Your task to perform on an android device: uninstall "Google Keep" Image 0: 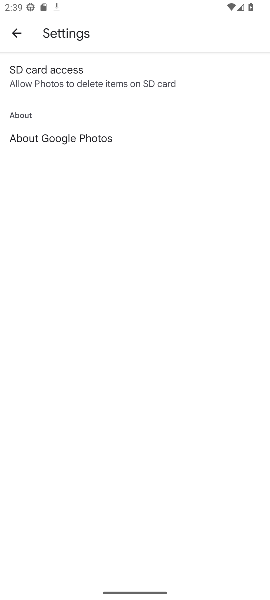
Step 0: press home button
Your task to perform on an android device: uninstall "Google Keep" Image 1: 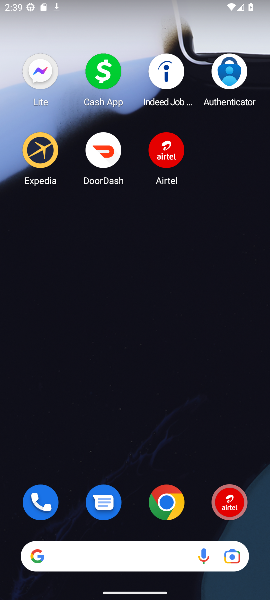
Step 1: drag from (136, 512) to (76, 83)
Your task to perform on an android device: uninstall "Google Keep" Image 2: 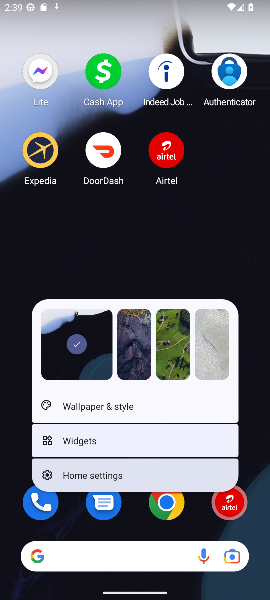
Step 2: click (139, 267)
Your task to perform on an android device: uninstall "Google Keep" Image 3: 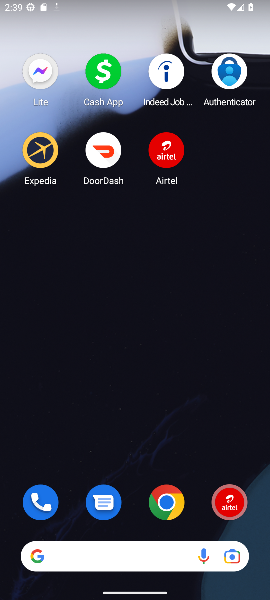
Step 3: drag from (139, 532) to (11, 0)
Your task to perform on an android device: uninstall "Google Keep" Image 4: 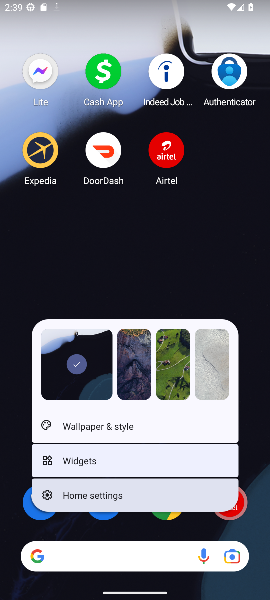
Step 4: click (80, 254)
Your task to perform on an android device: uninstall "Google Keep" Image 5: 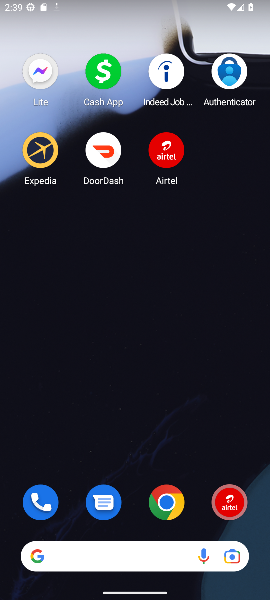
Step 5: drag from (141, 531) to (162, 0)
Your task to perform on an android device: uninstall "Google Keep" Image 6: 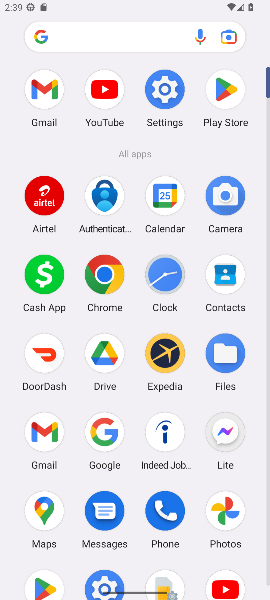
Step 6: click (217, 81)
Your task to perform on an android device: uninstall "Google Keep" Image 7: 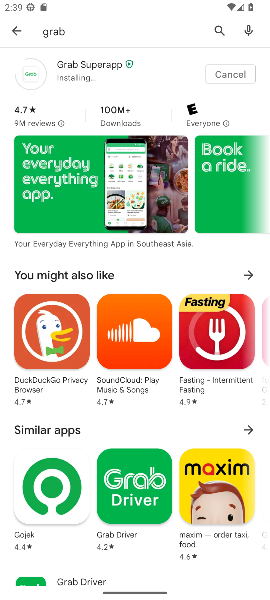
Step 7: click (223, 29)
Your task to perform on an android device: uninstall "Google Keep" Image 8: 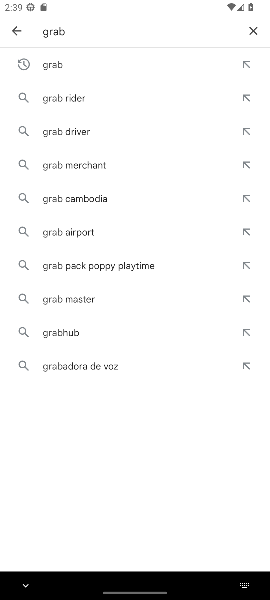
Step 8: click (251, 30)
Your task to perform on an android device: uninstall "Google Keep" Image 9: 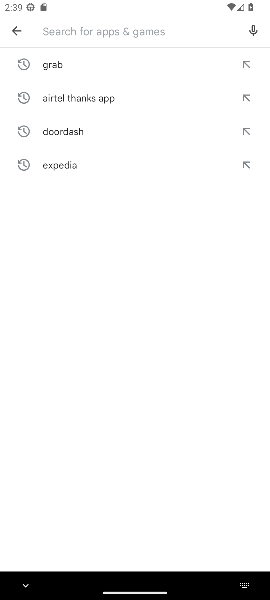
Step 9: type "google keep"
Your task to perform on an android device: uninstall "Google Keep" Image 10: 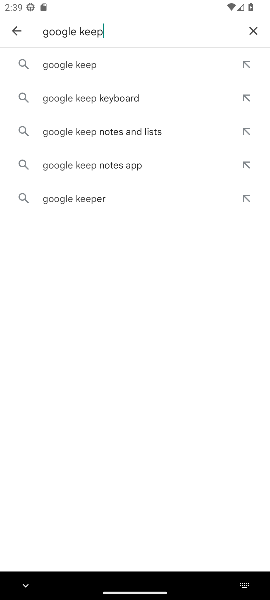
Step 10: click (51, 66)
Your task to perform on an android device: uninstall "Google Keep" Image 11: 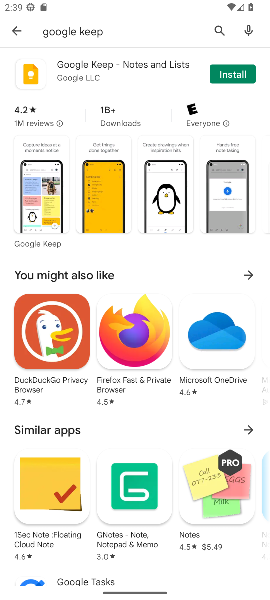
Step 11: click (239, 85)
Your task to perform on an android device: uninstall "Google Keep" Image 12: 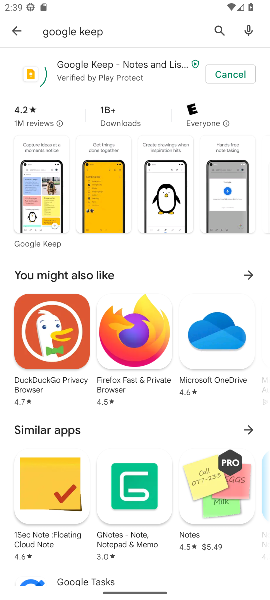
Step 12: task complete